Your task to perform on an android device: change alarm snooze length Image 0: 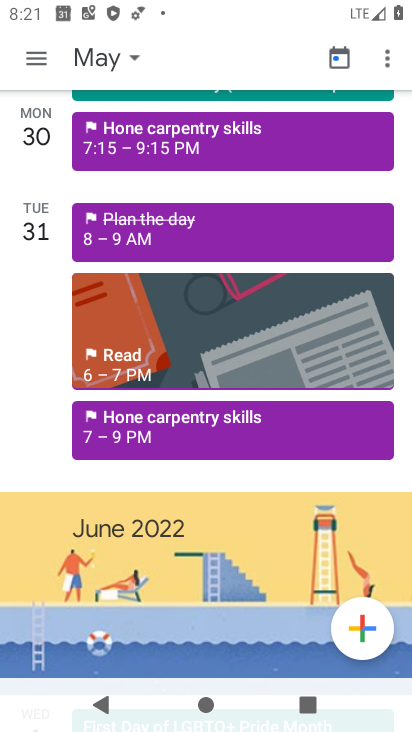
Step 0: press home button
Your task to perform on an android device: change alarm snooze length Image 1: 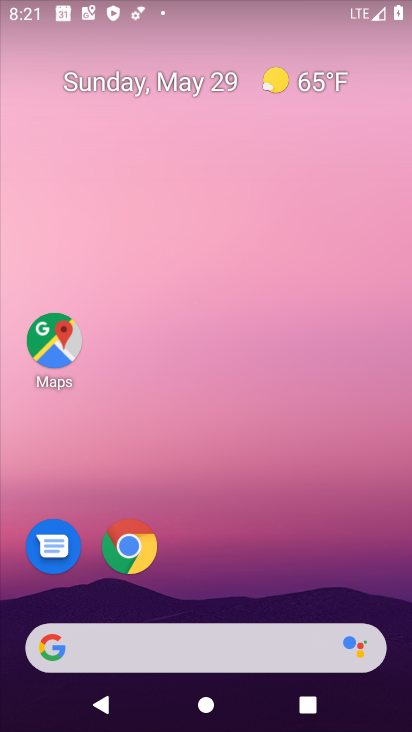
Step 1: click (250, 133)
Your task to perform on an android device: change alarm snooze length Image 2: 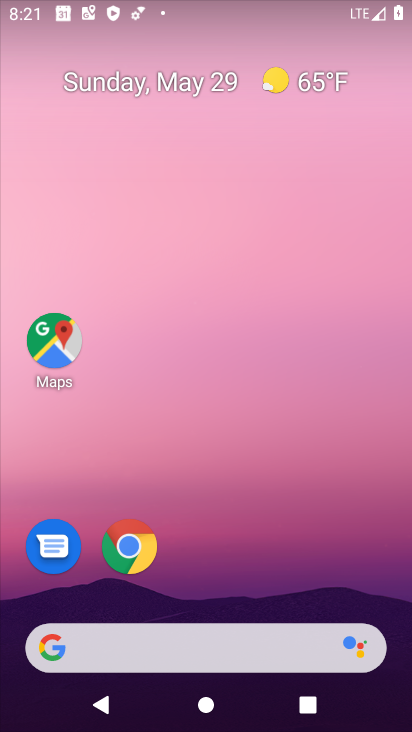
Step 2: drag from (244, 568) to (310, 93)
Your task to perform on an android device: change alarm snooze length Image 3: 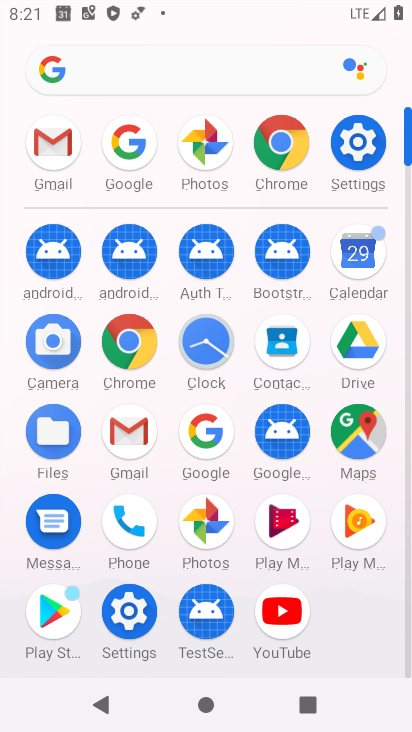
Step 3: click (187, 353)
Your task to perform on an android device: change alarm snooze length Image 4: 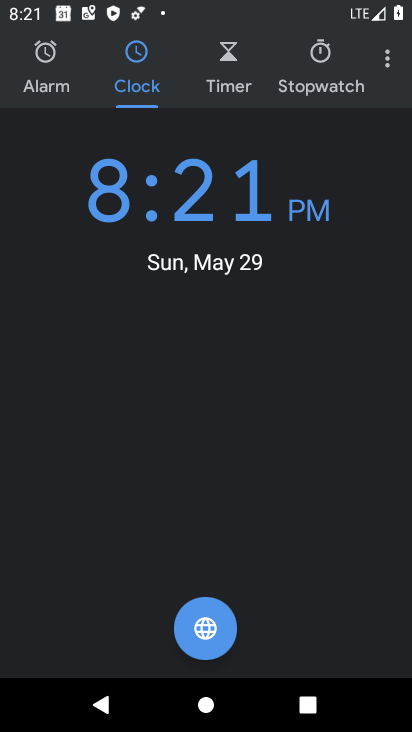
Step 4: click (388, 59)
Your task to perform on an android device: change alarm snooze length Image 5: 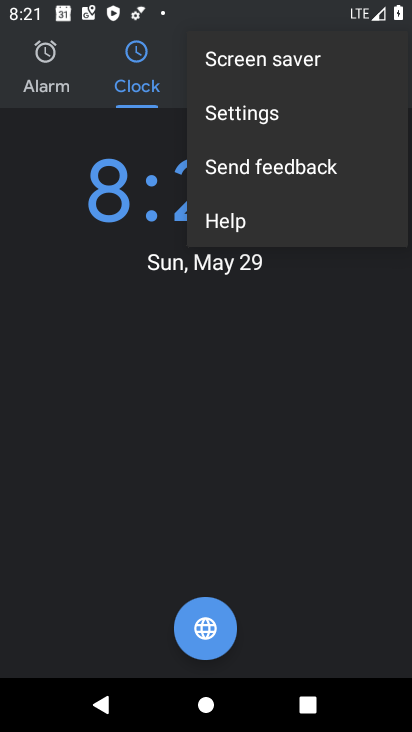
Step 5: click (278, 113)
Your task to perform on an android device: change alarm snooze length Image 6: 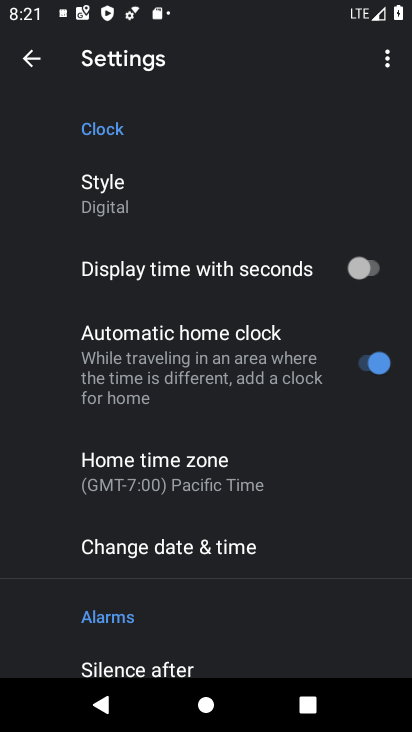
Step 6: drag from (154, 617) to (235, 143)
Your task to perform on an android device: change alarm snooze length Image 7: 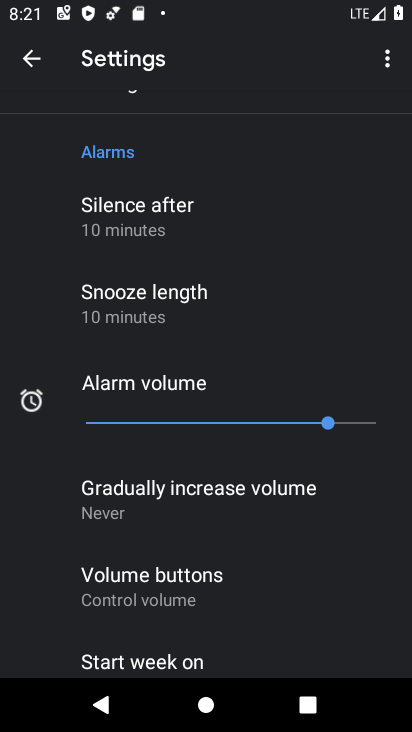
Step 7: click (158, 315)
Your task to perform on an android device: change alarm snooze length Image 8: 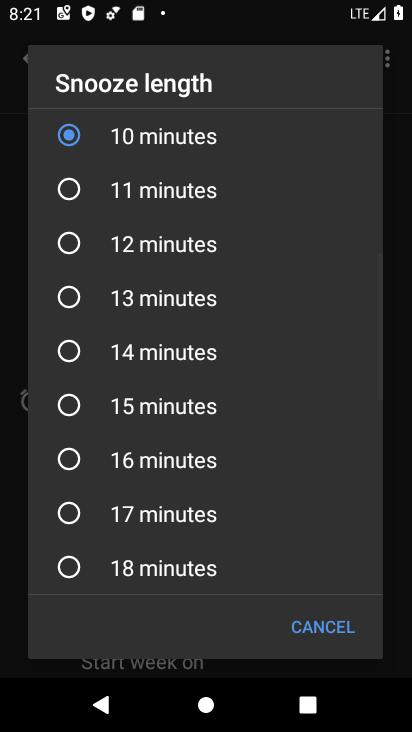
Step 8: click (148, 195)
Your task to perform on an android device: change alarm snooze length Image 9: 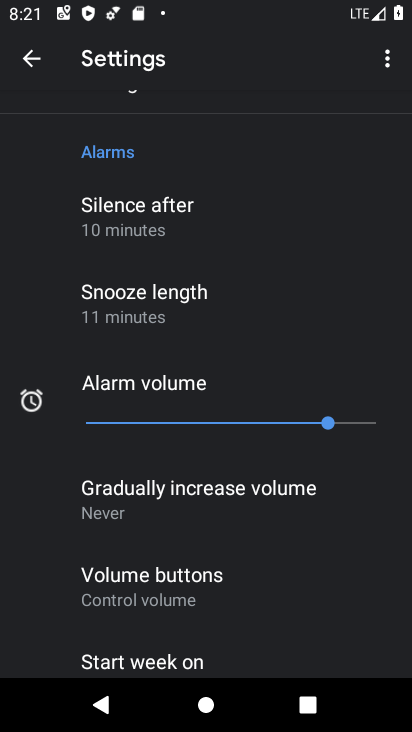
Step 9: task complete